Your task to perform on an android device: Find coffee shops on Maps Image 0: 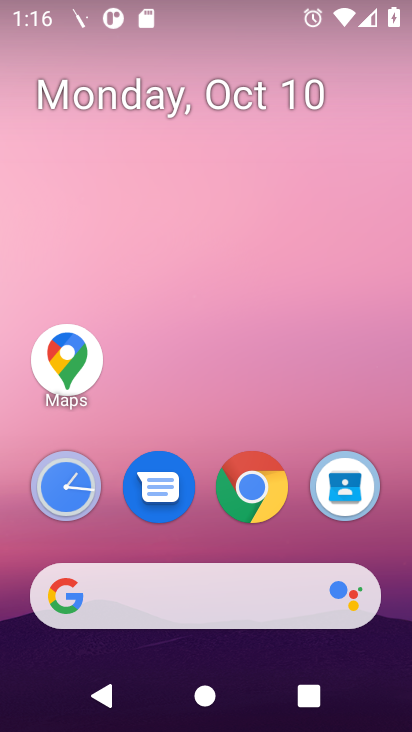
Step 0: click (267, 493)
Your task to perform on an android device: Find coffee shops on Maps Image 1: 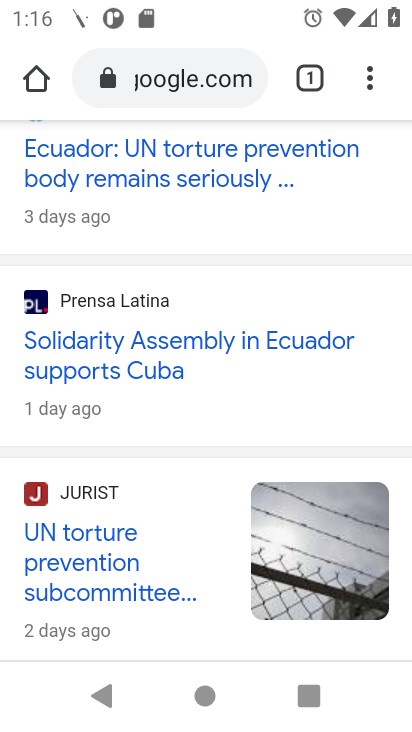
Step 1: click (216, 86)
Your task to perform on an android device: Find coffee shops on Maps Image 2: 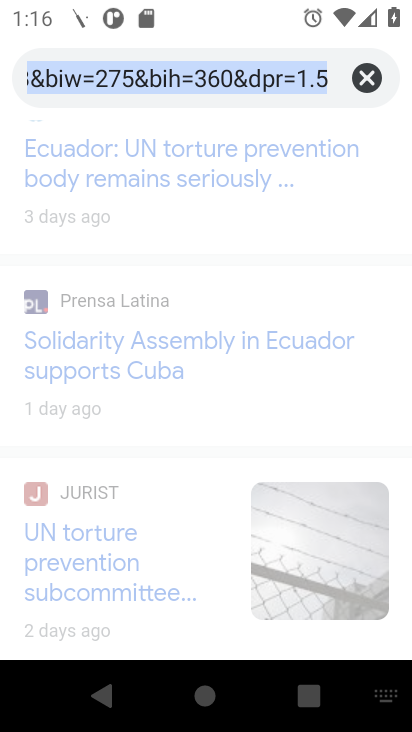
Step 2: press home button
Your task to perform on an android device: Find coffee shops on Maps Image 3: 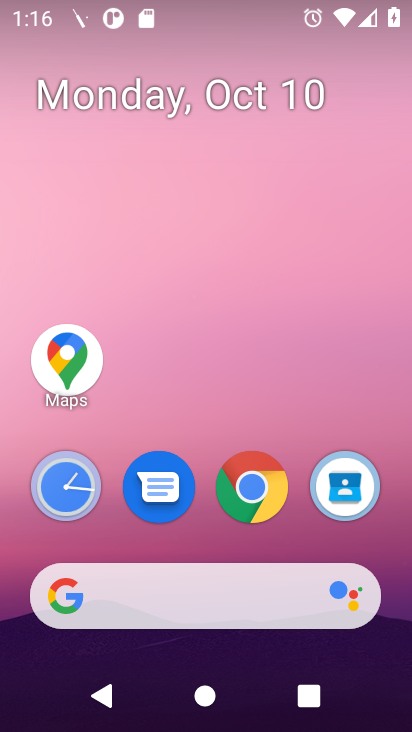
Step 3: click (69, 374)
Your task to perform on an android device: Find coffee shops on Maps Image 4: 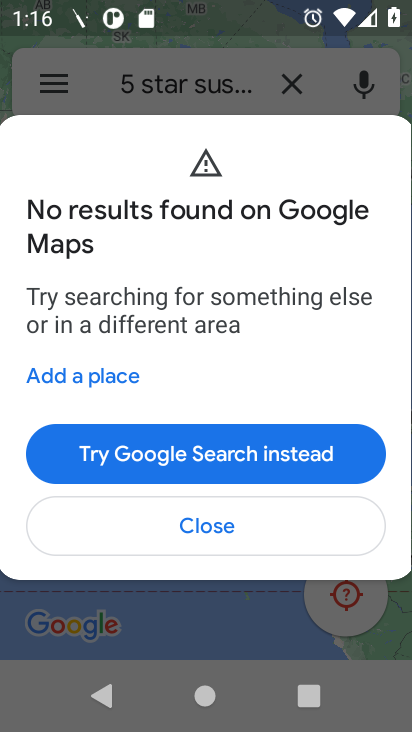
Step 4: click (180, 515)
Your task to perform on an android device: Find coffee shops on Maps Image 5: 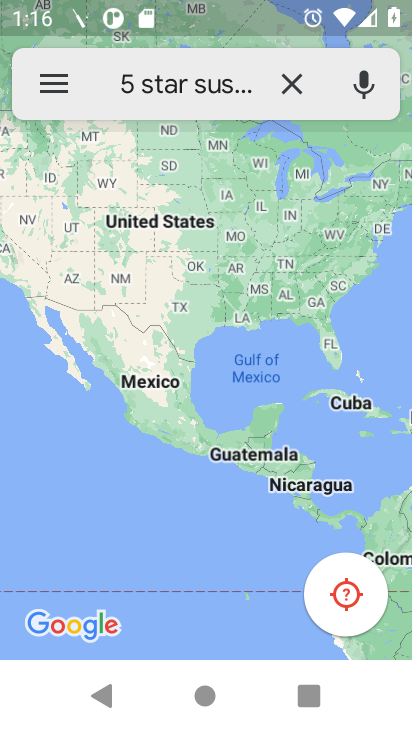
Step 5: click (198, 81)
Your task to perform on an android device: Find coffee shops on Maps Image 6: 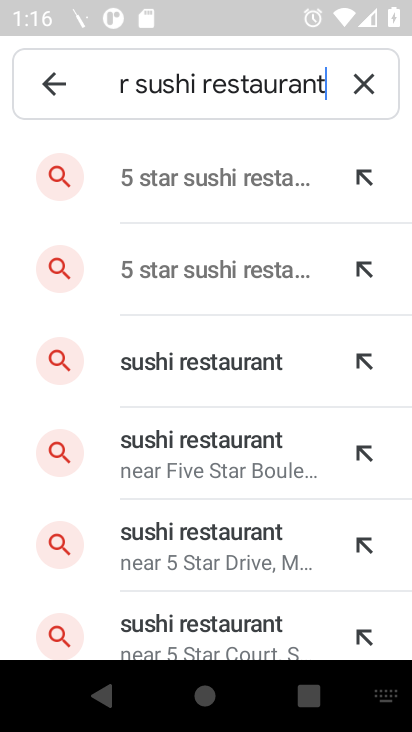
Step 6: type "coffee shops"
Your task to perform on an android device: Find coffee shops on Maps Image 7: 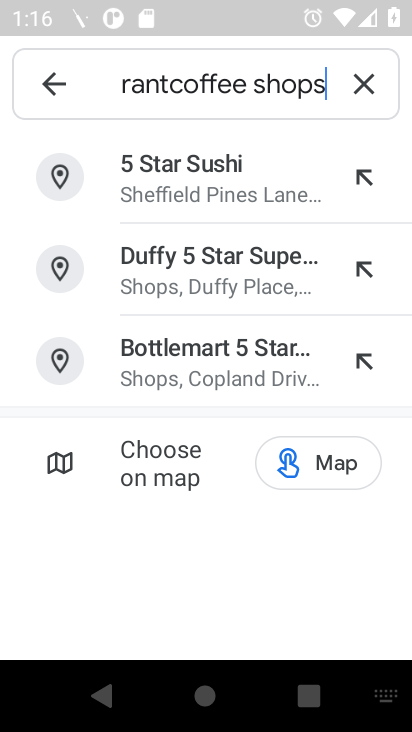
Step 7: type ""
Your task to perform on an android device: Find coffee shops on Maps Image 8: 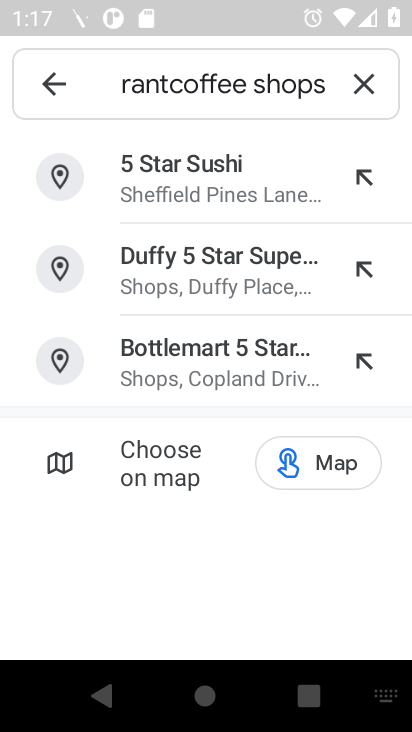
Step 8: press enter
Your task to perform on an android device: Find coffee shops on Maps Image 9: 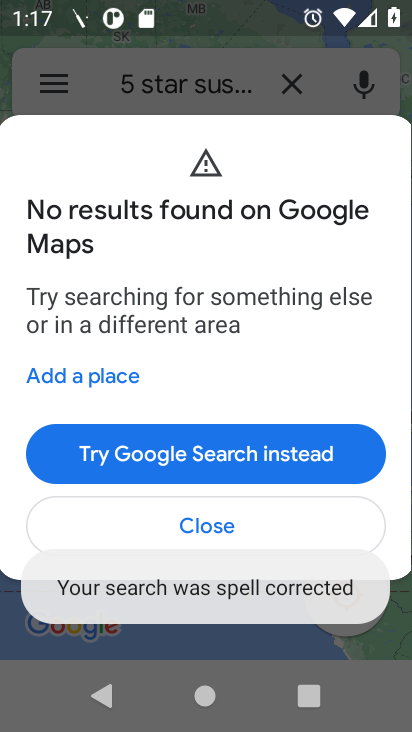
Step 9: click (241, 527)
Your task to perform on an android device: Find coffee shops on Maps Image 10: 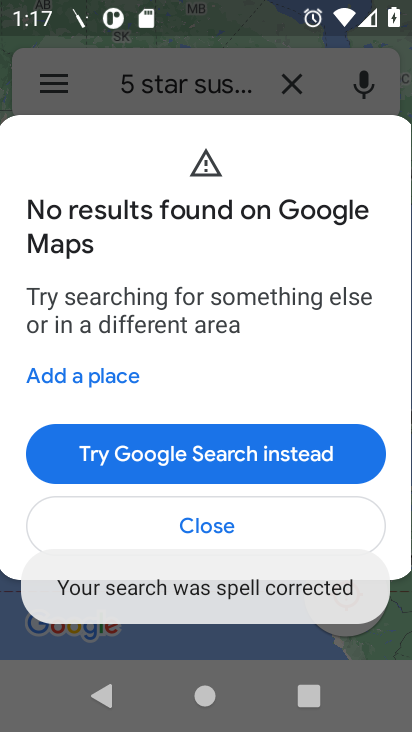
Step 10: press back button
Your task to perform on an android device: Find coffee shops on Maps Image 11: 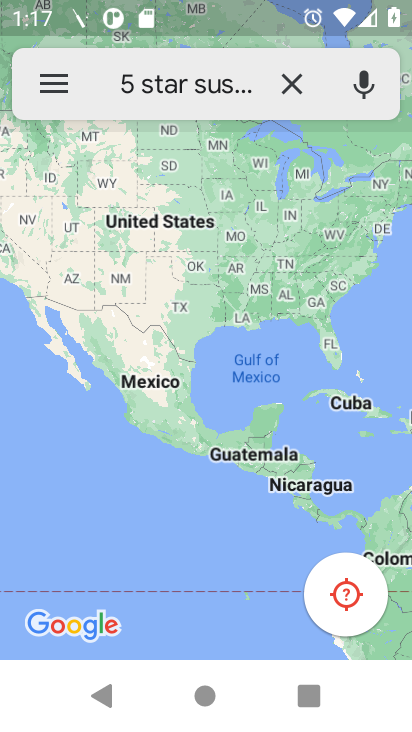
Step 11: press back button
Your task to perform on an android device: Find coffee shops on Maps Image 12: 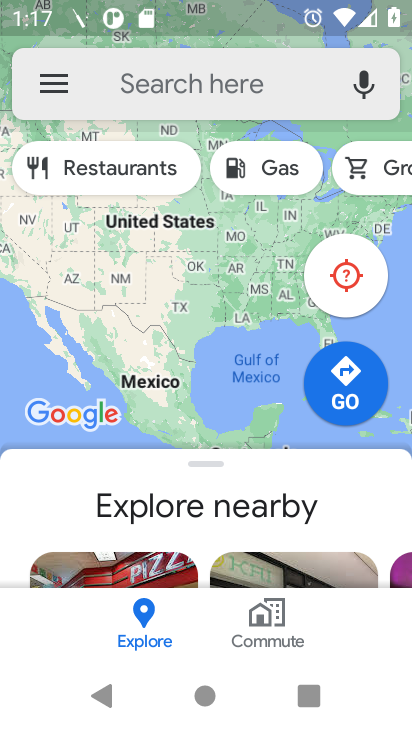
Step 12: click (288, 83)
Your task to perform on an android device: Find coffee shops on Maps Image 13: 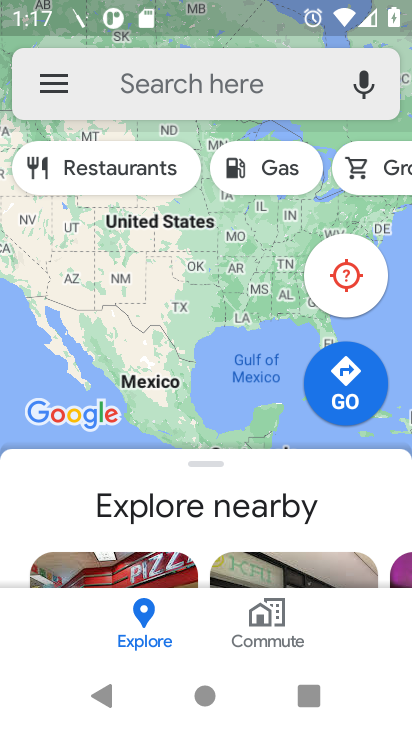
Step 13: click (180, 77)
Your task to perform on an android device: Find coffee shops on Maps Image 14: 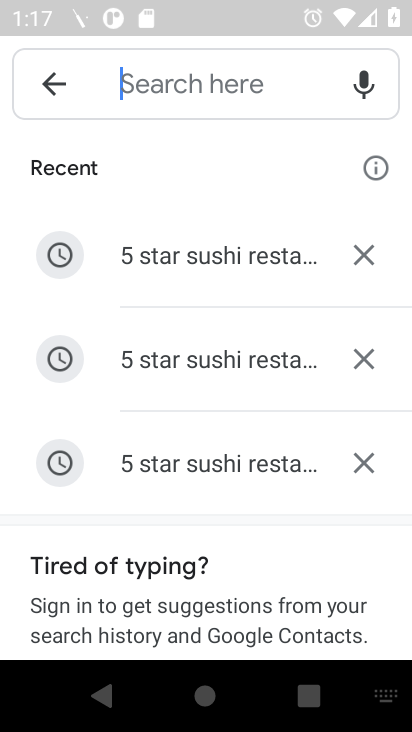
Step 14: type "coffee shops"
Your task to perform on an android device: Find coffee shops on Maps Image 15: 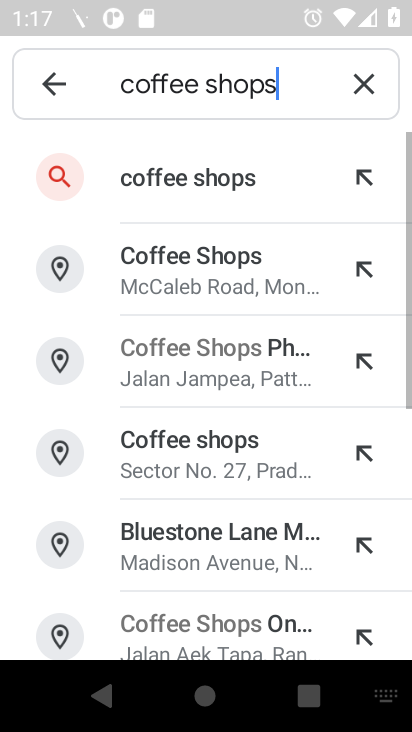
Step 15: type ""
Your task to perform on an android device: Find coffee shops on Maps Image 16: 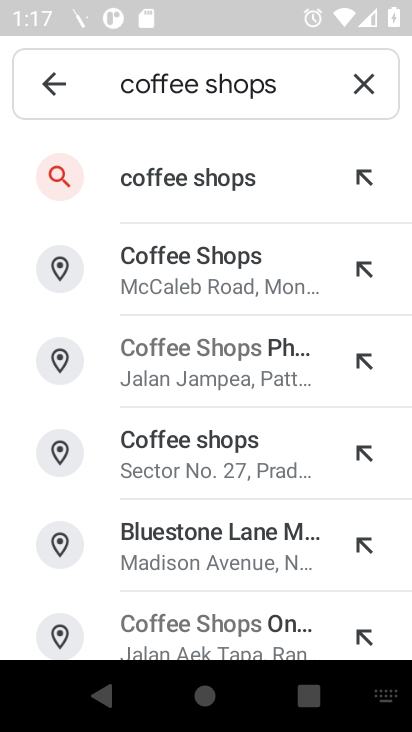
Step 16: press enter
Your task to perform on an android device: Find coffee shops on Maps Image 17: 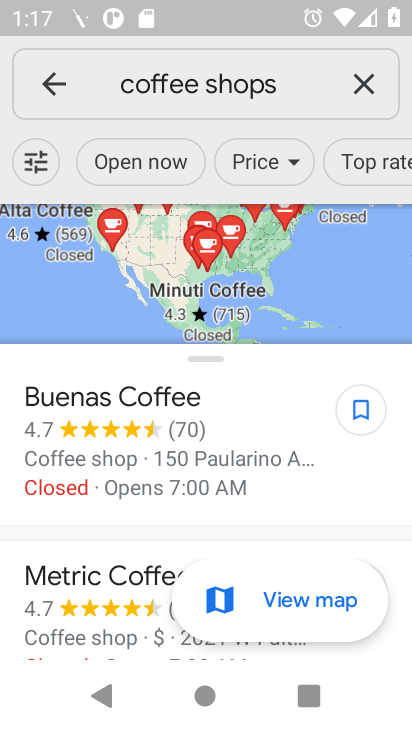
Step 17: task complete